Your task to perform on an android device: Do I have any events tomorrow? Image 0: 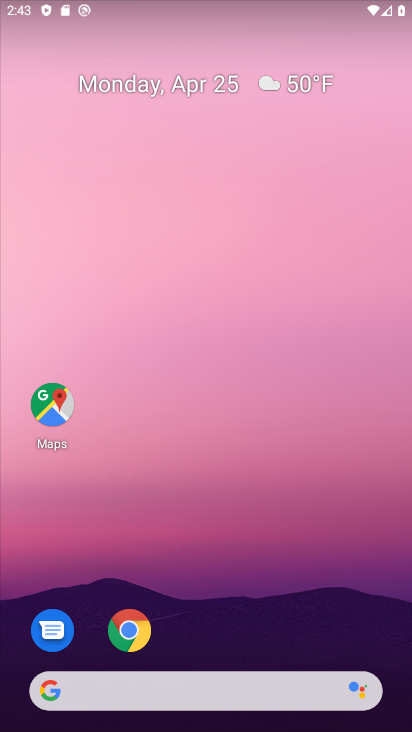
Step 0: drag from (213, 580) to (61, 157)
Your task to perform on an android device: Do I have any events tomorrow? Image 1: 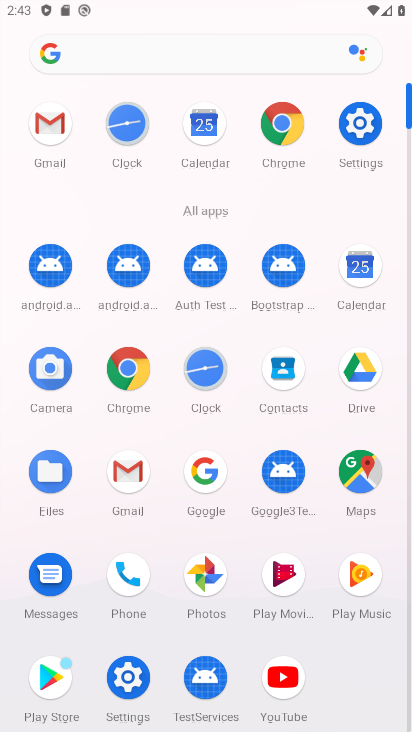
Step 1: click (356, 259)
Your task to perform on an android device: Do I have any events tomorrow? Image 2: 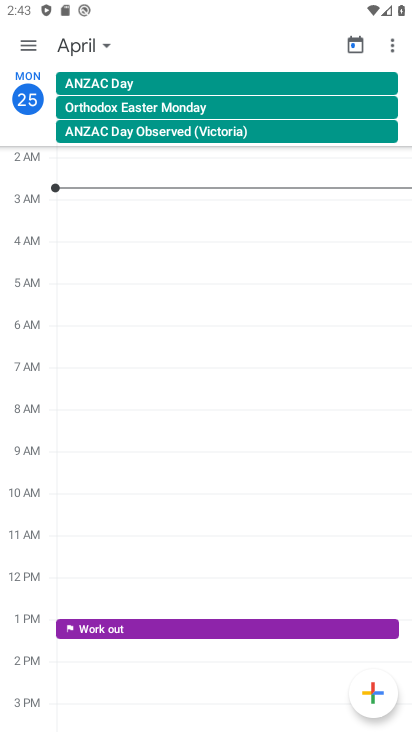
Step 2: click (84, 46)
Your task to perform on an android device: Do I have any events tomorrow? Image 3: 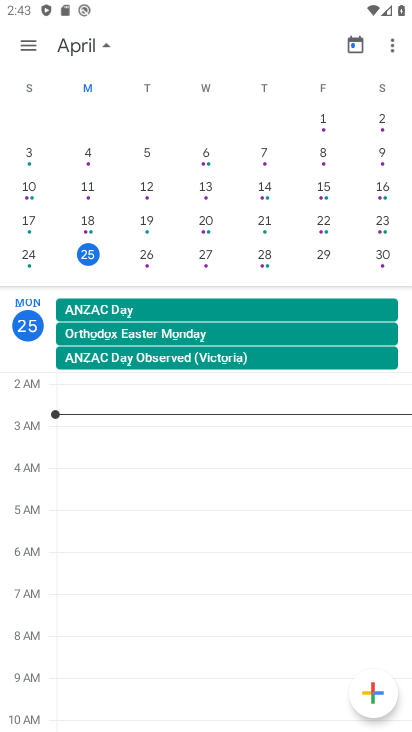
Step 3: click (148, 254)
Your task to perform on an android device: Do I have any events tomorrow? Image 4: 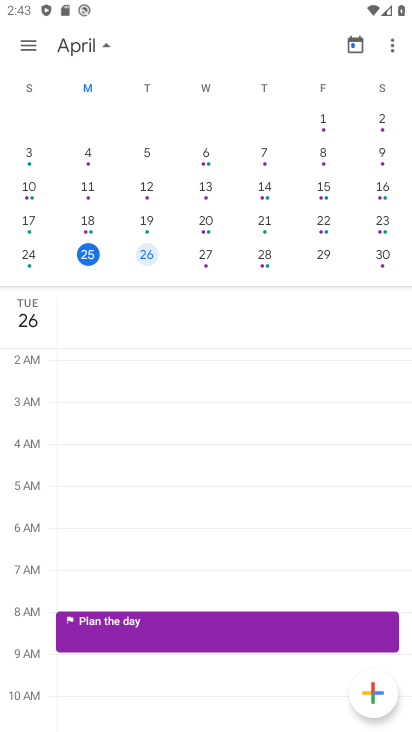
Step 4: task complete